Your task to perform on an android device: delete the emails in spam in the gmail app Image 0: 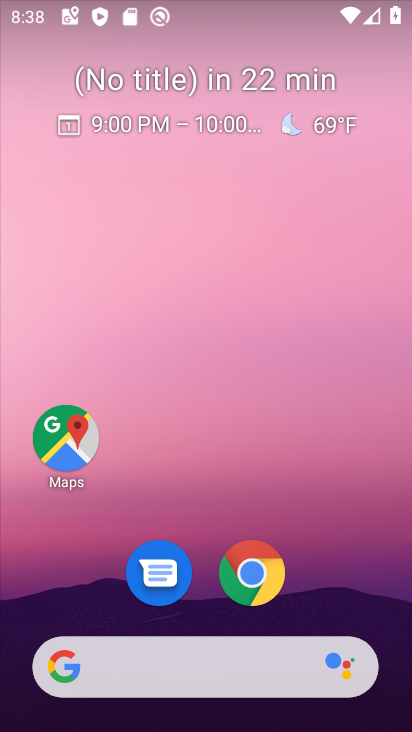
Step 0: drag from (204, 605) to (236, 11)
Your task to perform on an android device: delete the emails in spam in the gmail app Image 1: 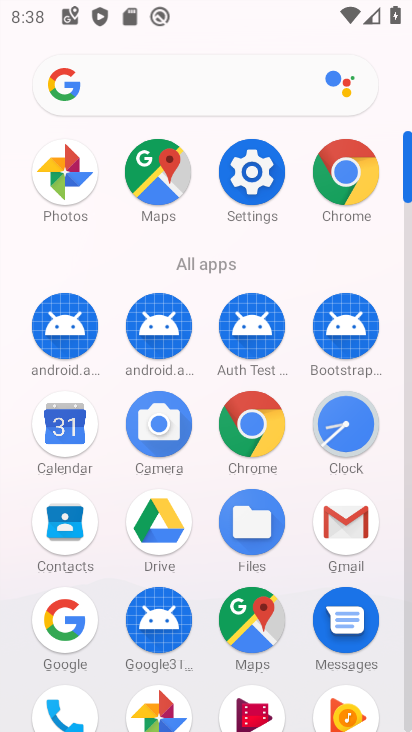
Step 1: click (330, 537)
Your task to perform on an android device: delete the emails in spam in the gmail app Image 2: 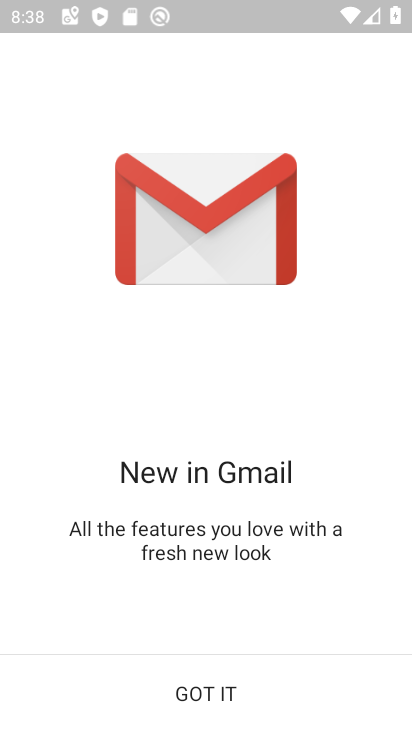
Step 2: click (176, 682)
Your task to perform on an android device: delete the emails in spam in the gmail app Image 3: 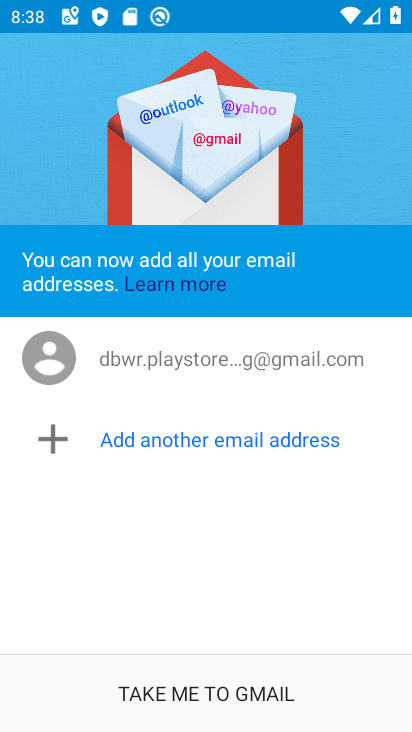
Step 3: click (175, 691)
Your task to perform on an android device: delete the emails in spam in the gmail app Image 4: 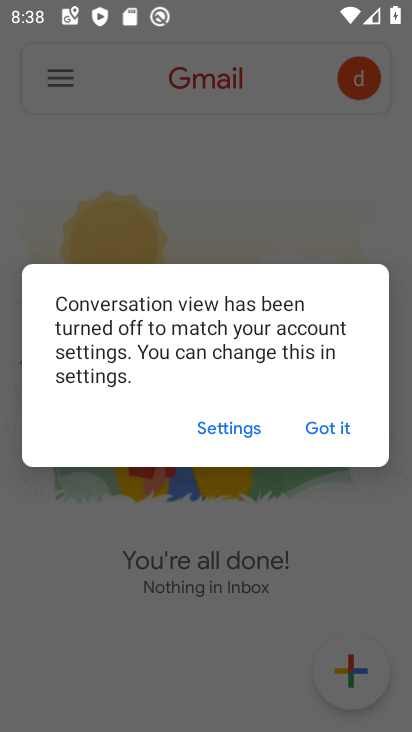
Step 4: click (344, 415)
Your task to perform on an android device: delete the emails in spam in the gmail app Image 5: 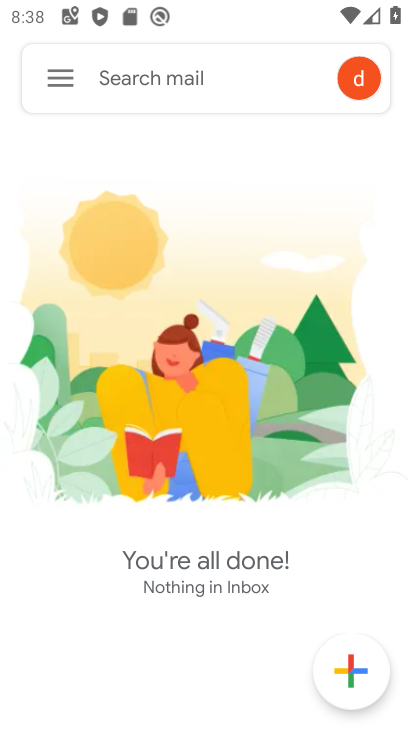
Step 5: click (75, 75)
Your task to perform on an android device: delete the emails in spam in the gmail app Image 6: 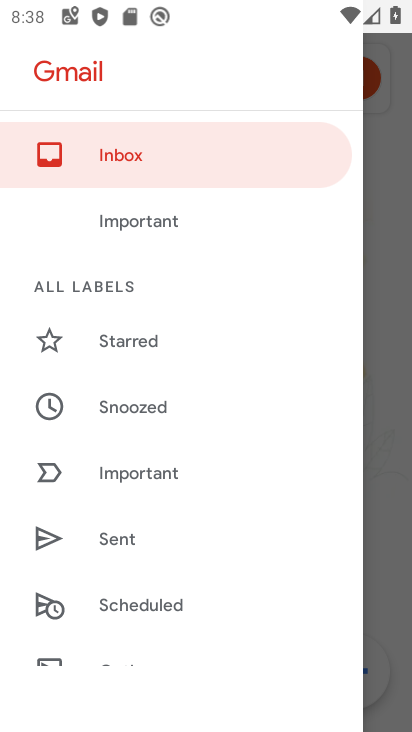
Step 6: drag from (124, 518) to (183, 176)
Your task to perform on an android device: delete the emails in spam in the gmail app Image 7: 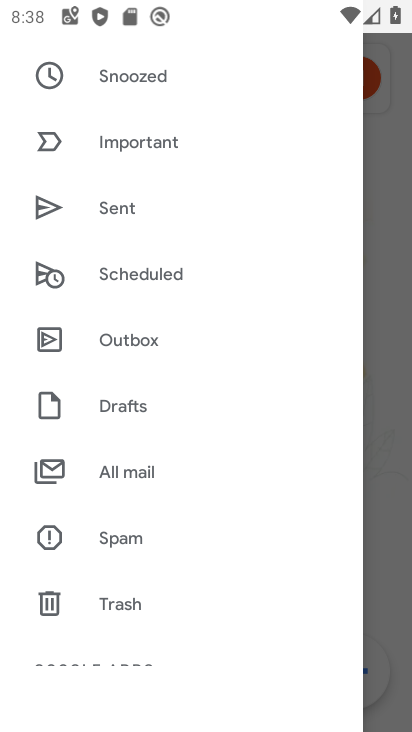
Step 7: click (101, 547)
Your task to perform on an android device: delete the emails in spam in the gmail app Image 8: 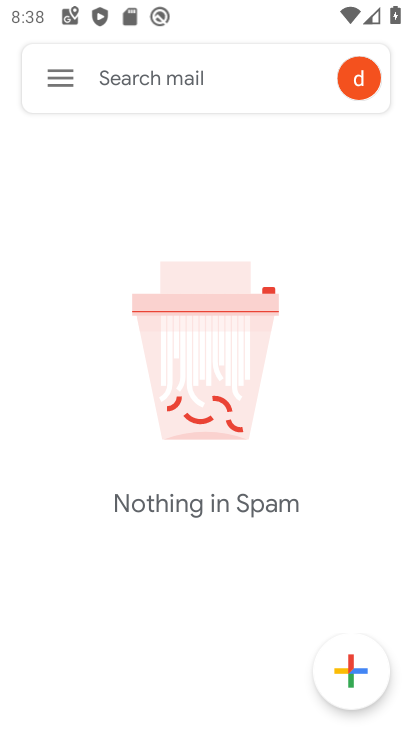
Step 8: task complete